Your task to perform on an android device: Open Chrome and go to settings Image 0: 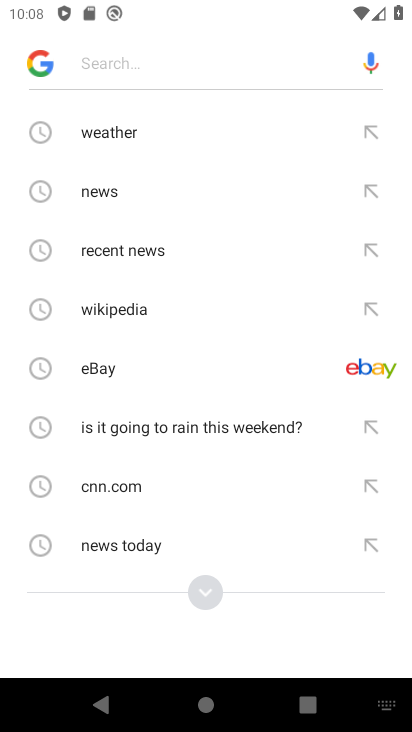
Step 0: press home button
Your task to perform on an android device: Open Chrome and go to settings Image 1: 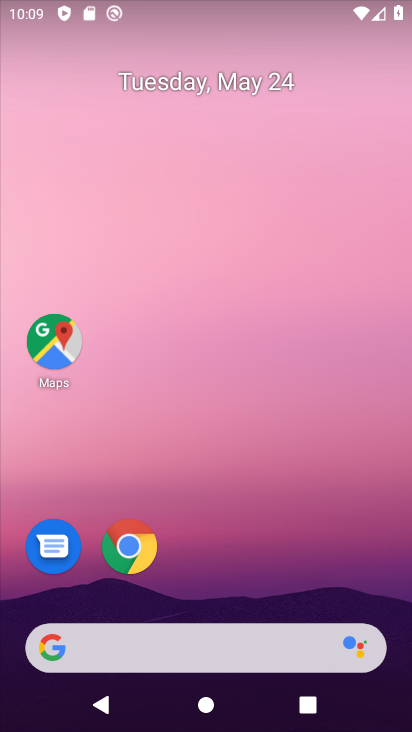
Step 1: drag from (253, 489) to (287, 122)
Your task to perform on an android device: Open Chrome and go to settings Image 2: 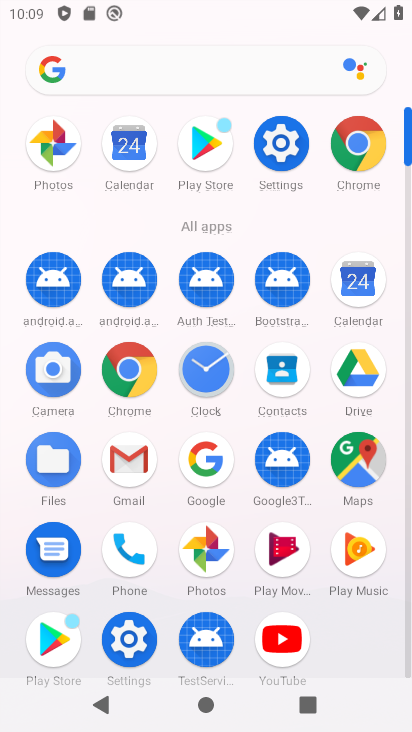
Step 2: click (356, 146)
Your task to perform on an android device: Open Chrome and go to settings Image 3: 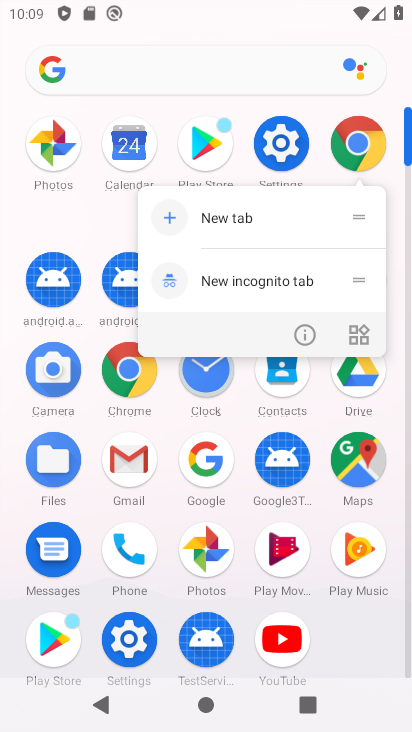
Step 3: click (356, 146)
Your task to perform on an android device: Open Chrome and go to settings Image 4: 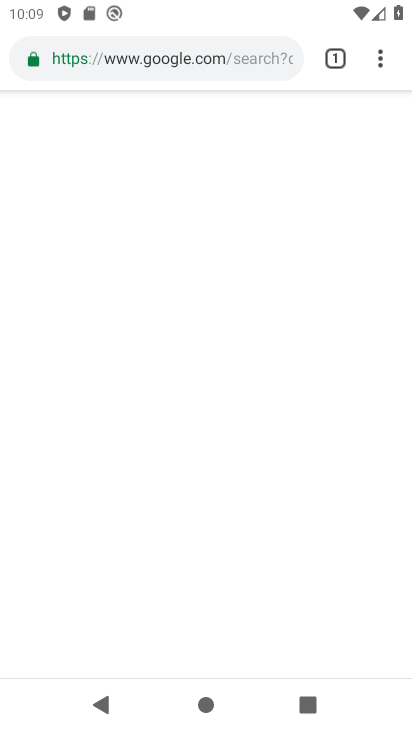
Step 4: click (380, 49)
Your task to perform on an android device: Open Chrome and go to settings Image 5: 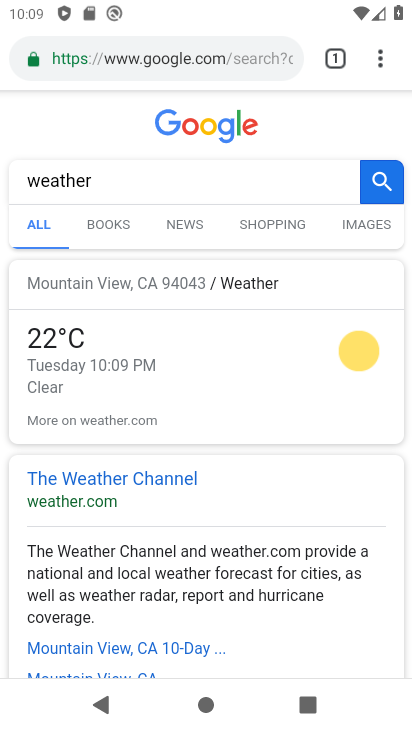
Step 5: task complete